Your task to perform on an android device: turn notification dots on Image 0: 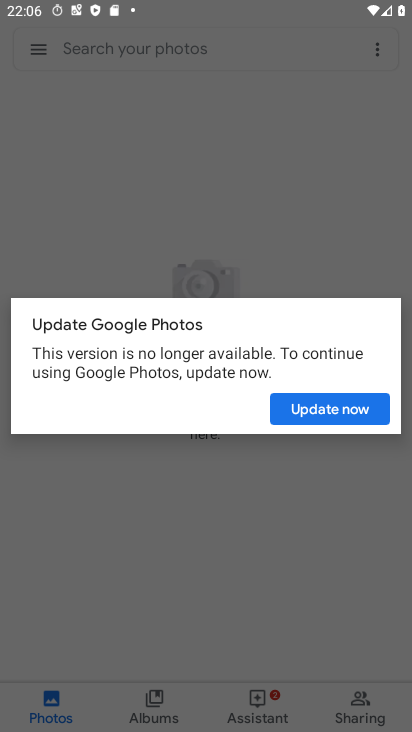
Step 0: press back button
Your task to perform on an android device: turn notification dots on Image 1: 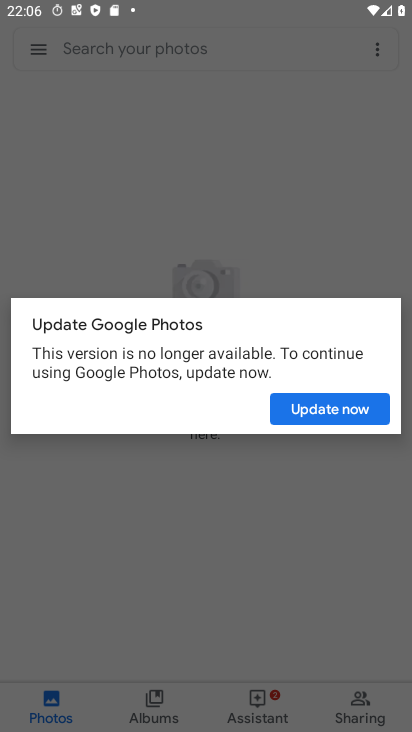
Step 1: press home button
Your task to perform on an android device: turn notification dots on Image 2: 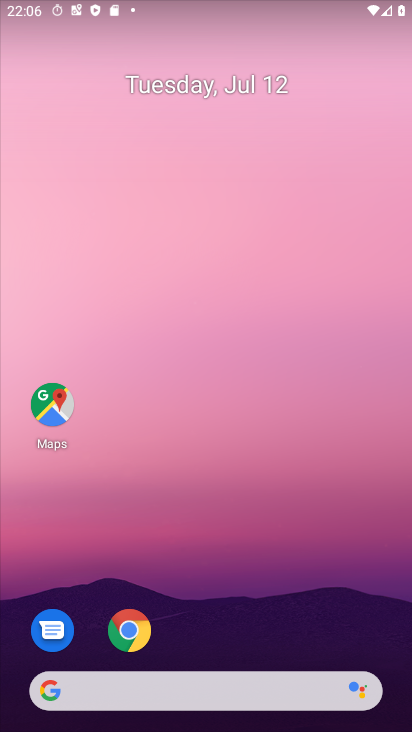
Step 2: drag from (204, 654) to (296, 0)
Your task to perform on an android device: turn notification dots on Image 3: 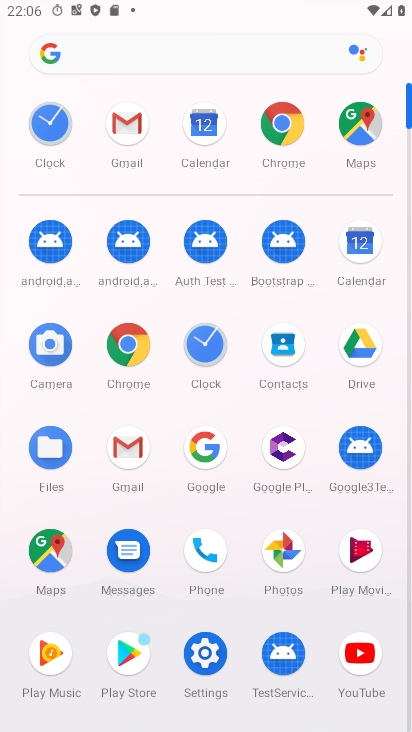
Step 3: click (204, 655)
Your task to perform on an android device: turn notification dots on Image 4: 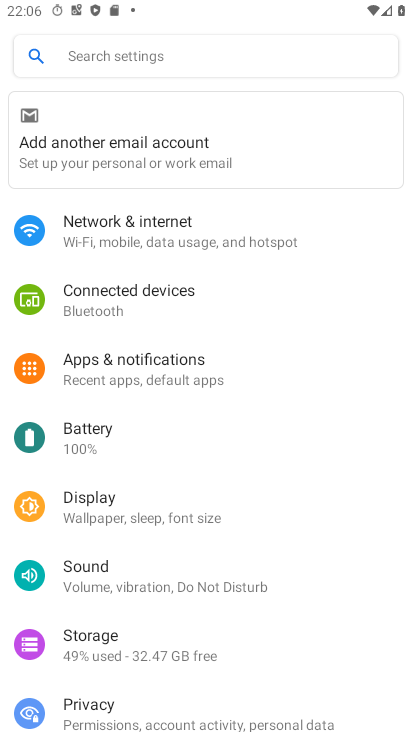
Step 4: click (174, 377)
Your task to perform on an android device: turn notification dots on Image 5: 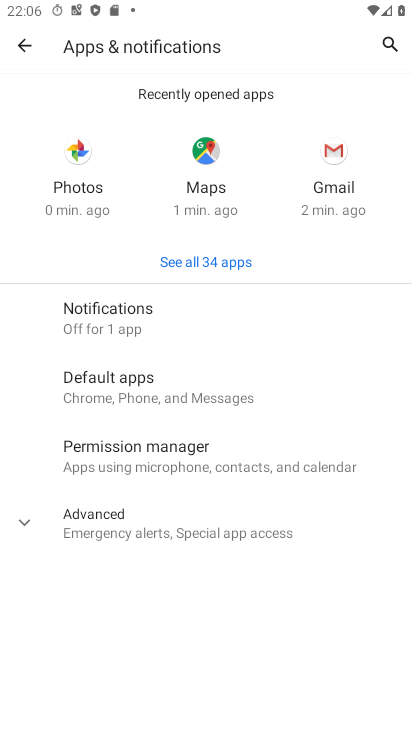
Step 5: click (125, 322)
Your task to perform on an android device: turn notification dots on Image 6: 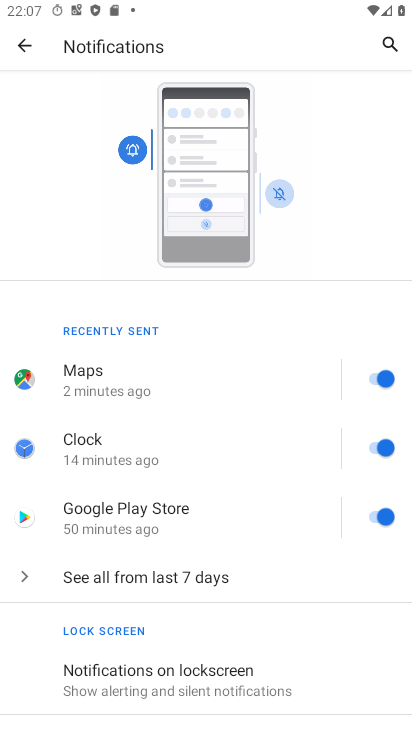
Step 6: drag from (165, 694) to (252, 255)
Your task to perform on an android device: turn notification dots on Image 7: 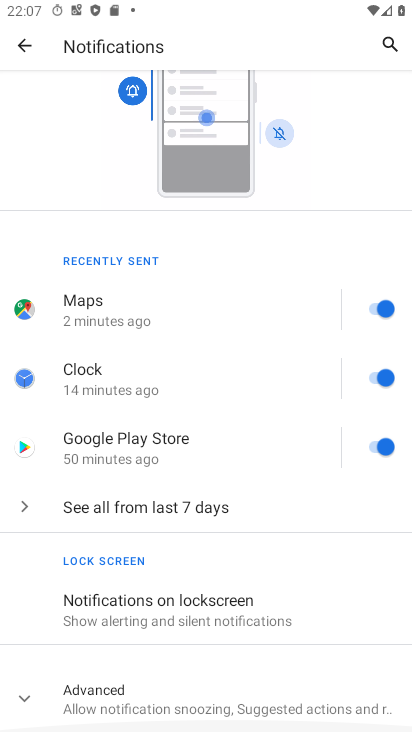
Step 7: click (158, 708)
Your task to perform on an android device: turn notification dots on Image 8: 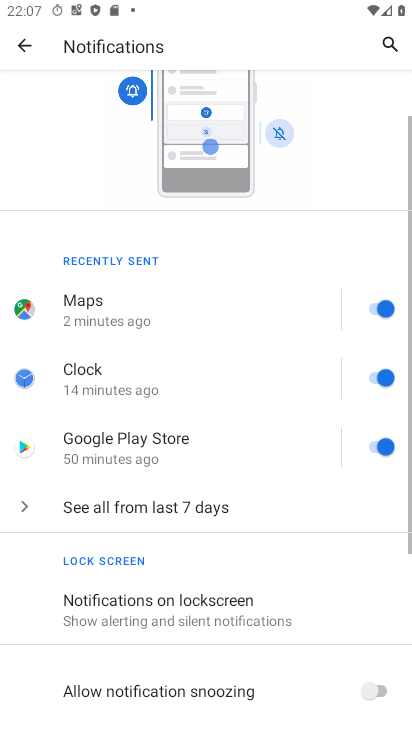
Step 8: task complete